Your task to perform on an android device: turn off improve location accuracy Image 0: 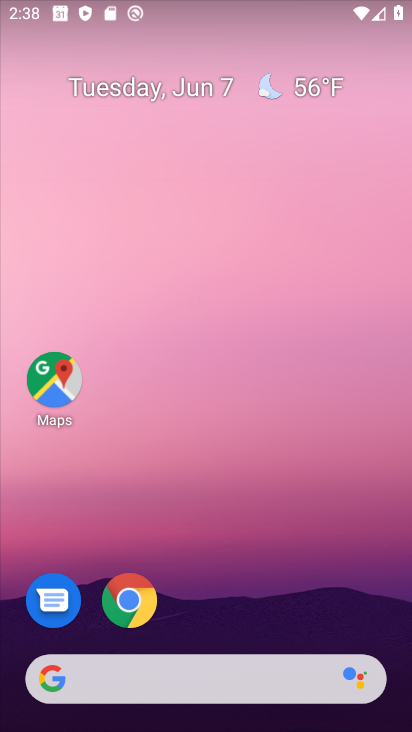
Step 0: drag from (395, 654) to (335, 169)
Your task to perform on an android device: turn off improve location accuracy Image 1: 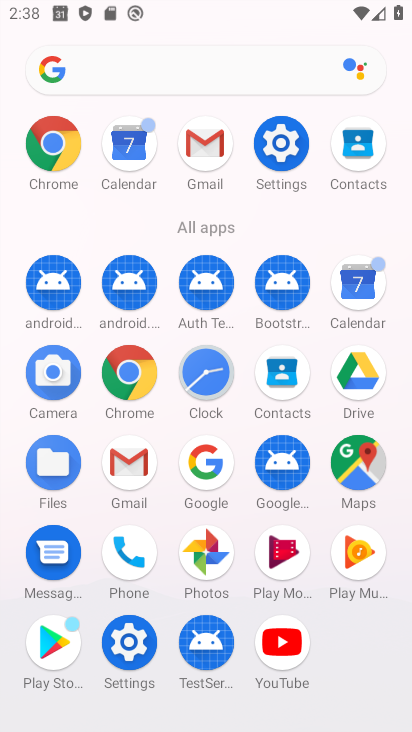
Step 1: click (285, 156)
Your task to perform on an android device: turn off improve location accuracy Image 2: 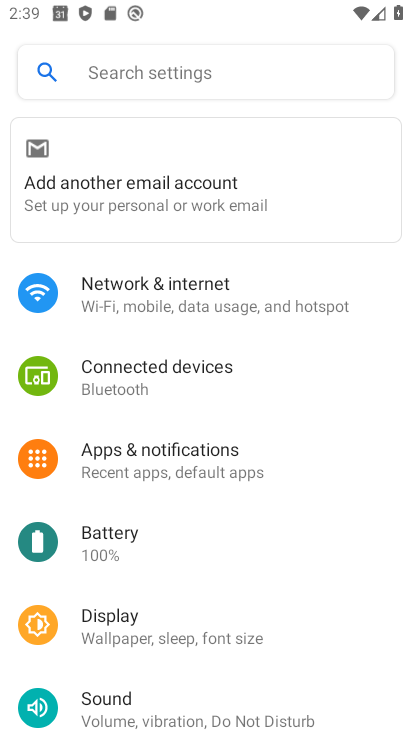
Step 2: drag from (183, 661) to (161, 290)
Your task to perform on an android device: turn off improve location accuracy Image 3: 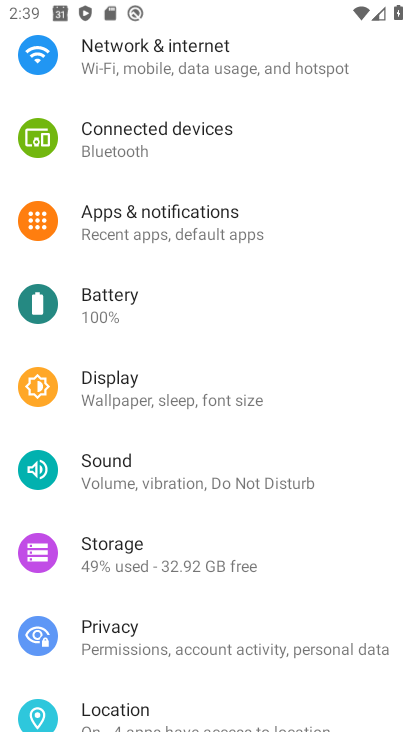
Step 3: click (129, 705)
Your task to perform on an android device: turn off improve location accuracy Image 4: 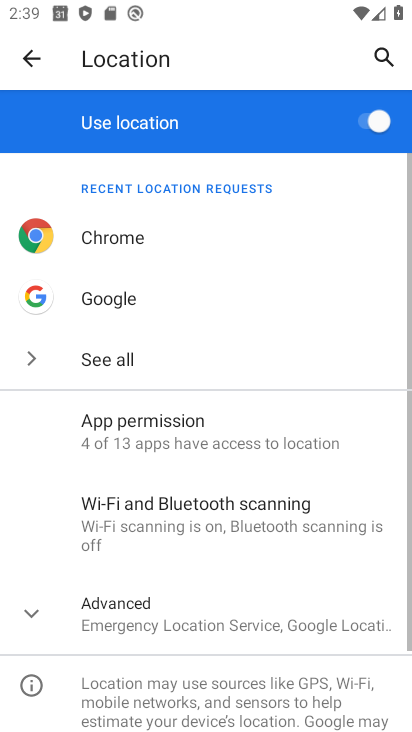
Step 4: click (57, 600)
Your task to perform on an android device: turn off improve location accuracy Image 5: 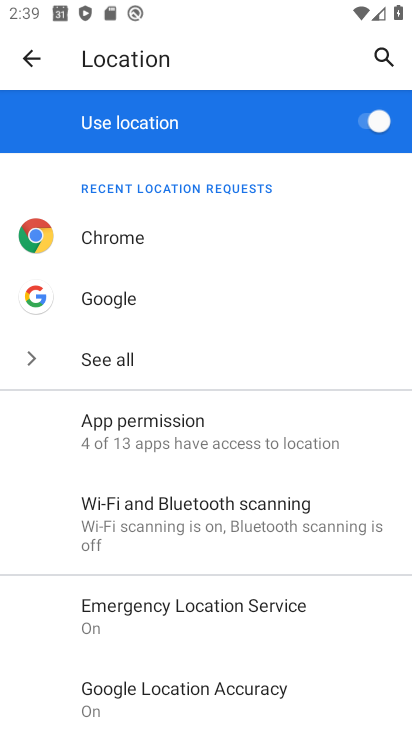
Step 5: click (146, 686)
Your task to perform on an android device: turn off improve location accuracy Image 6: 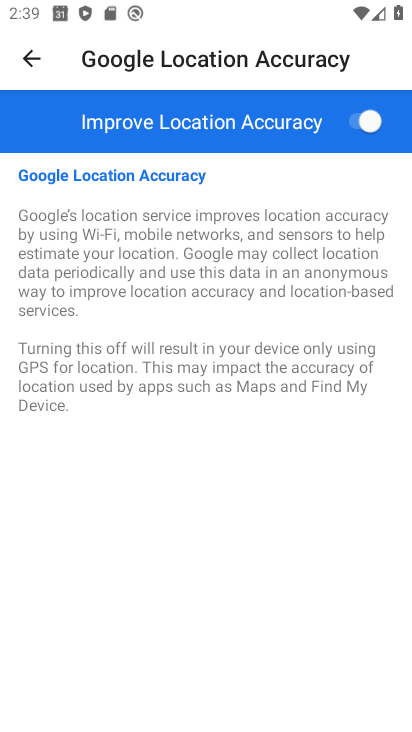
Step 6: click (348, 124)
Your task to perform on an android device: turn off improve location accuracy Image 7: 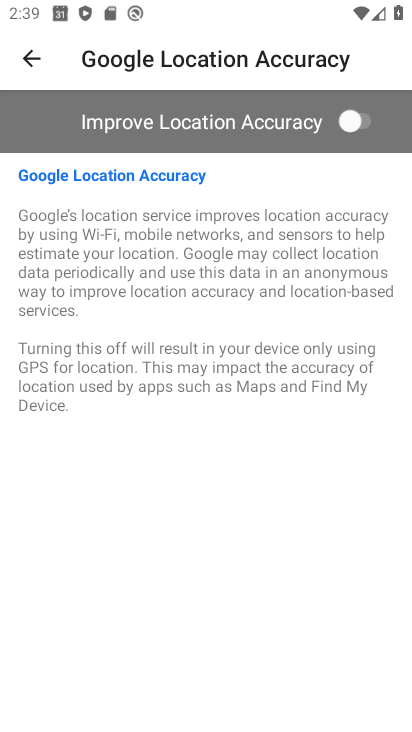
Step 7: task complete